Your task to perform on an android device: check the backup settings in the google photos Image 0: 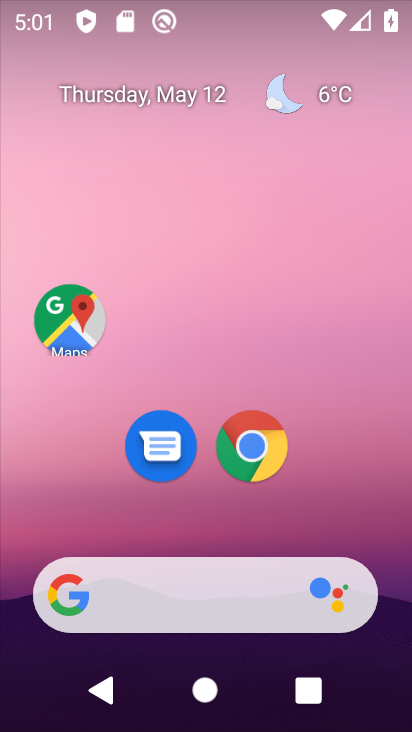
Step 0: drag from (359, 495) to (351, 99)
Your task to perform on an android device: check the backup settings in the google photos Image 1: 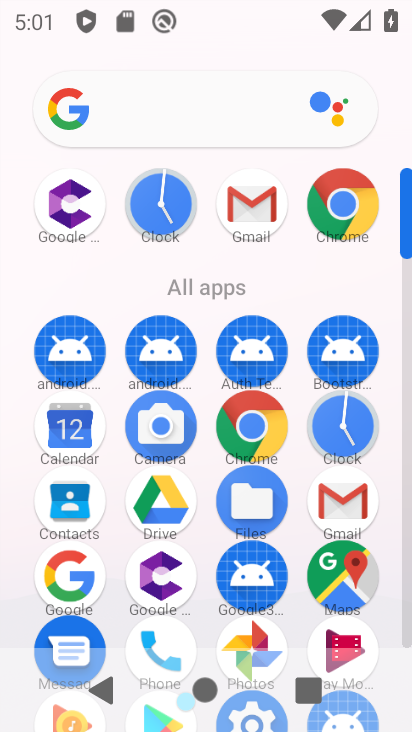
Step 1: drag from (296, 301) to (301, 32)
Your task to perform on an android device: check the backup settings in the google photos Image 2: 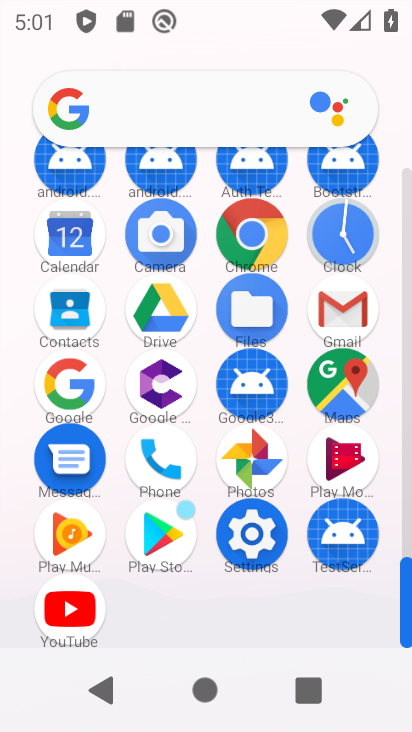
Step 2: click (251, 444)
Your task to perform on an android device: check the backup settings in the google photos Image 3: 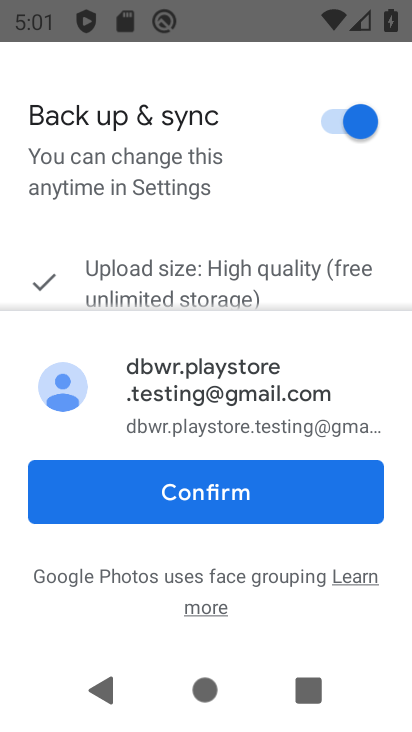
Step 3: click (217, 489)
Your task to perform on an android device: check the backup settings in the google photos Image 4: 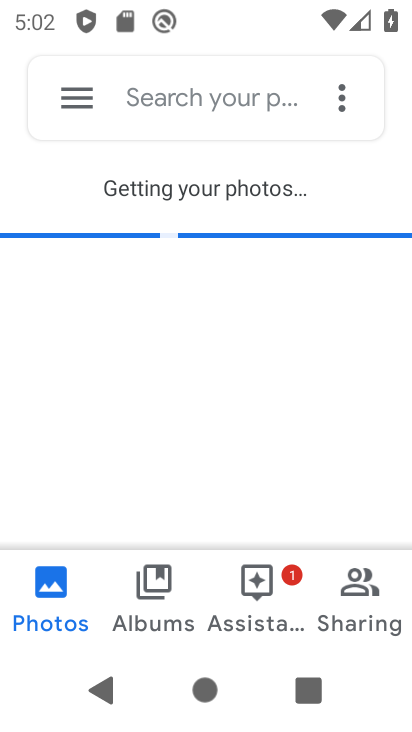
Step 4: click (75, 96)
Your task to perform on an android device: check the backup settings in the google photos Image 5: 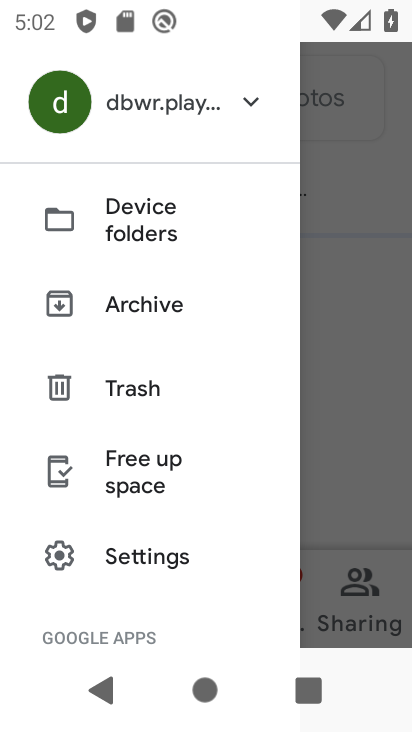
Step 5: click (159, 549)
Your task to perform on an android device: check the backup settings in the google photos Image 6: 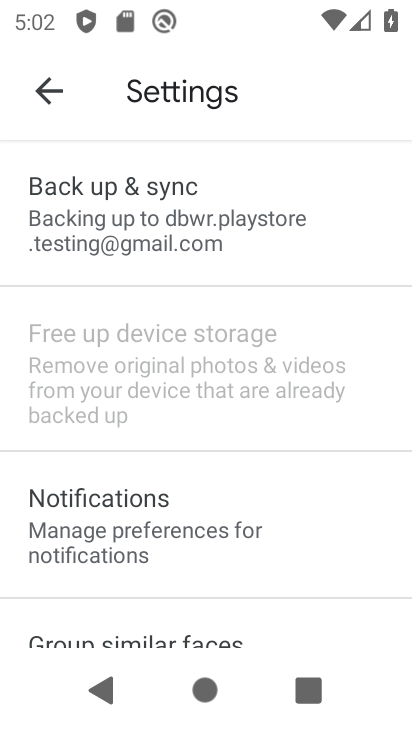
Step 6: click (118, 214)
Your task to perform on an android device: check the backup settings in the google photos Image 7: 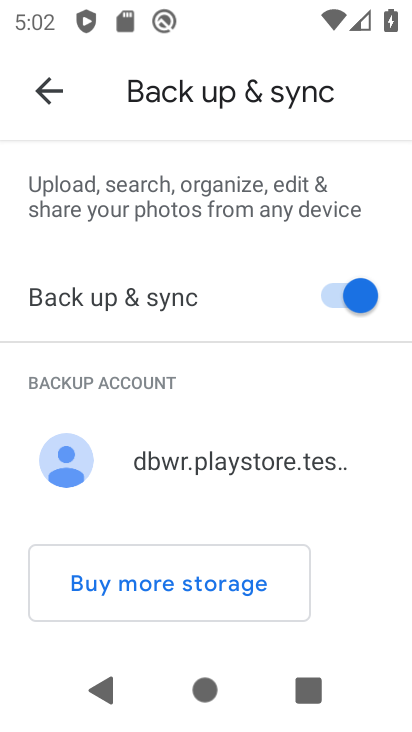
Step 7: task complete